Your task to perform on an android device: Show me recent news Image 0: 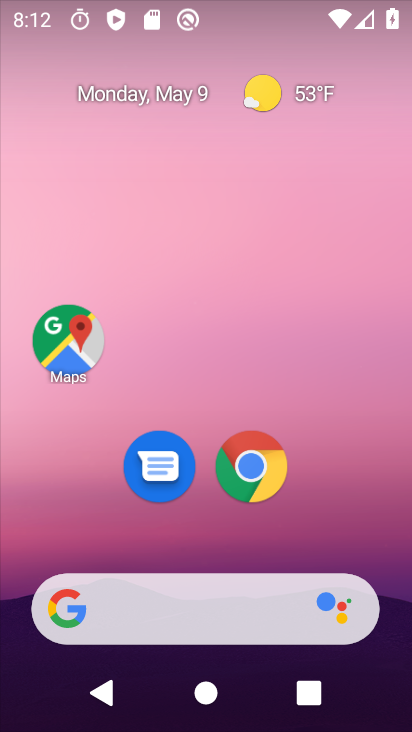
Step 0: drag from (343, 533) to (235, 32)
Your task to perform on an android device: Show me recent news Image 1: 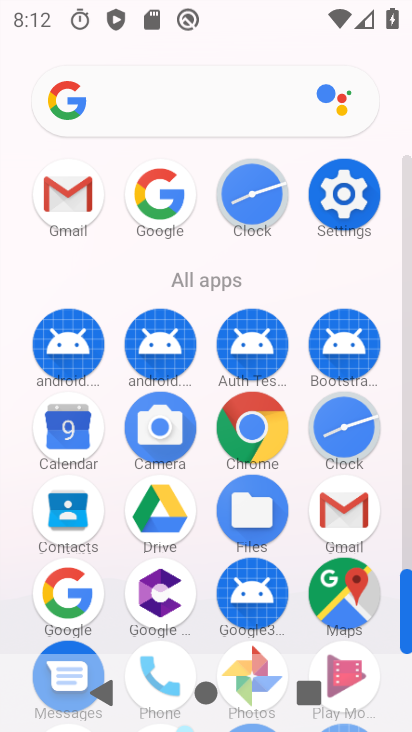
Step 1: click (153, 192)
Your task to perform on an android device: Show me recent news Image 2: 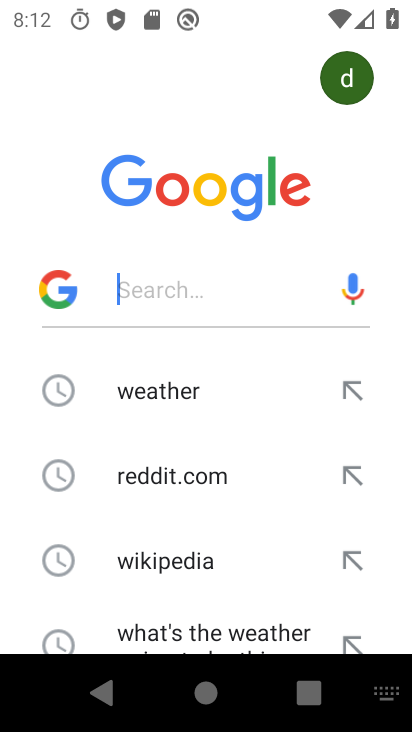
Step 2: click (182, 302)
Your task to perform on an android device: Show me recent news Image 3: 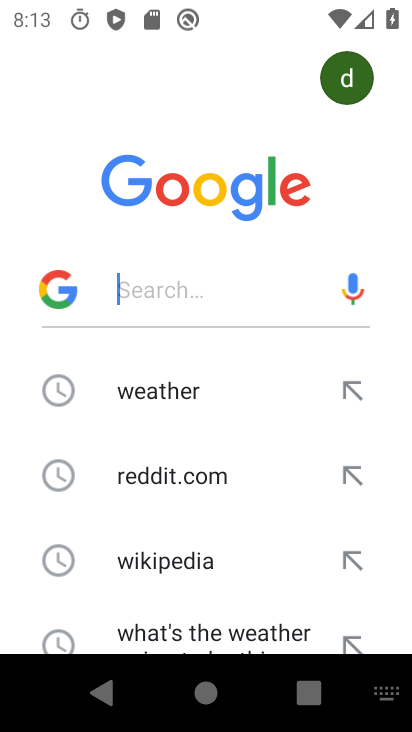
Step 3: type "recent news"
Your task to perform on an android device: Show me recent news Image 4: 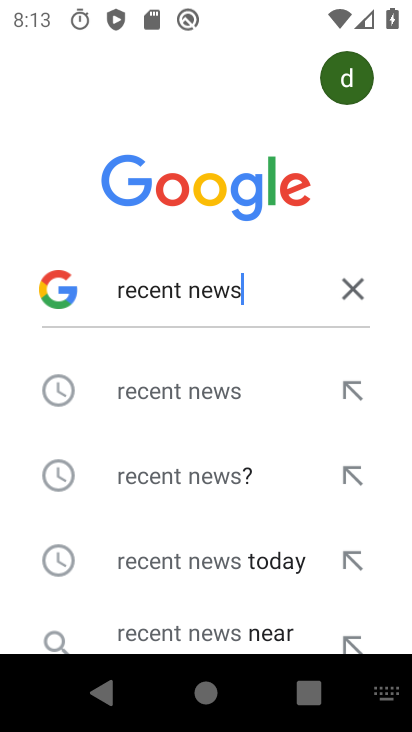
Step 4: type ""
Your task to perform on an android device: Show me recent news Image 5: 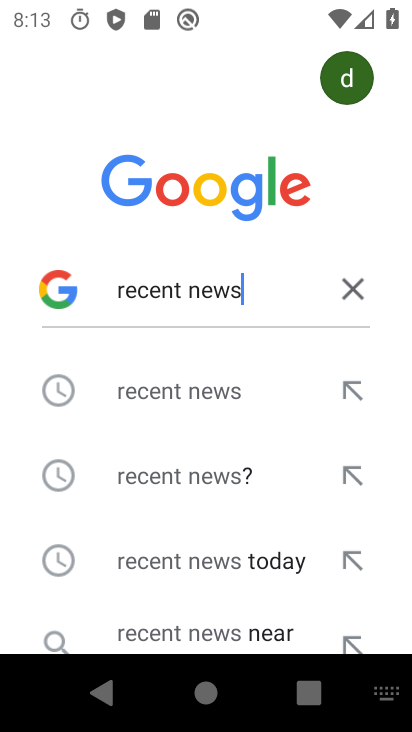
Step 5: click (179, 396)
Your task to perform on an android device: Show me recent news Image 6: 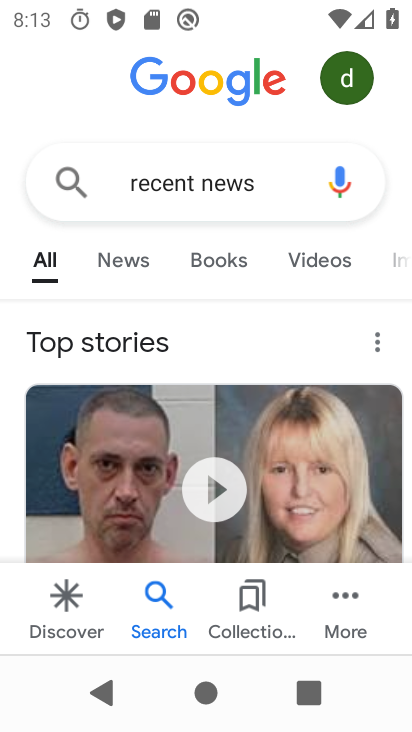
Step 6: task complete